Your task to perform on an android device: add a contact Image 0: 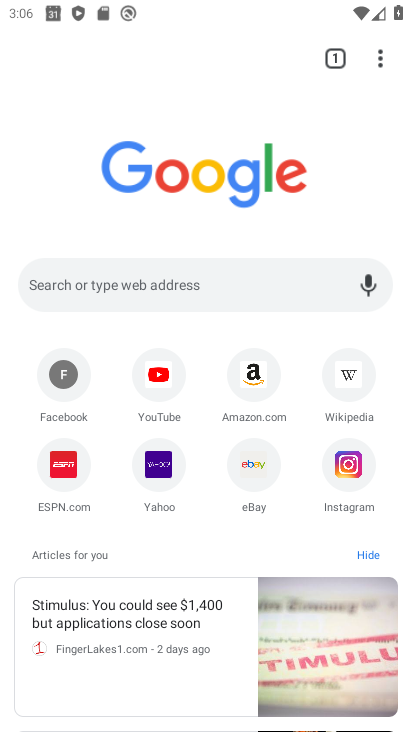
Step 0: press back button
Your task to perform on an android device: add a contact Image 1: 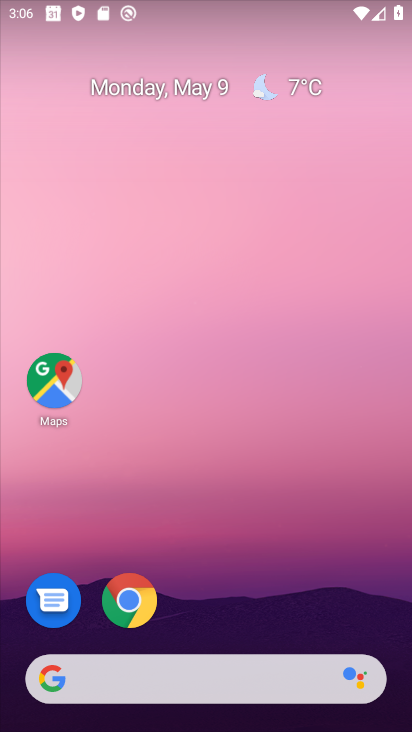
Step 1: drag from (209, 587) to (160, 30)
Your task to perform on an android device: add a contact Image 2: 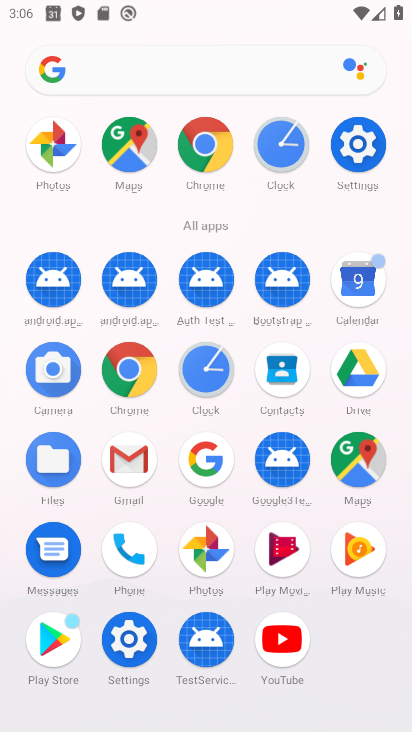
Step 2: drag from (14, 507) to (0, 179)
Your task to perform on an android device: add a contact Image 3: 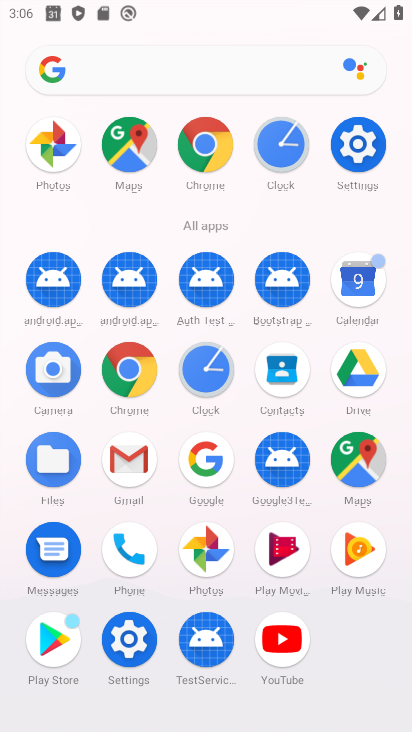
Step 3: click (282, 369)
Your task to perform on an android device: add a contact Image 4: 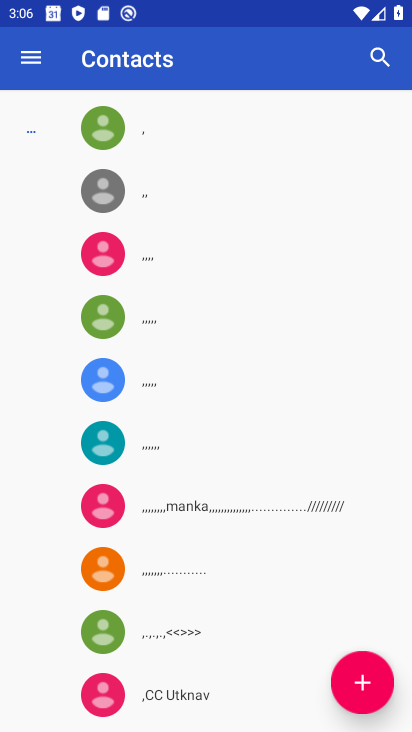
Step 4: click (372, 678)
Your task to perform on an android device: add a contact Image 5: 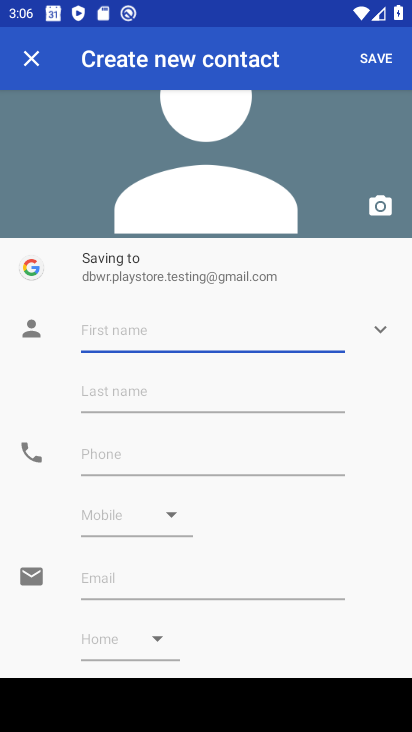
Step 5: click (165, 333)
Your task to perform on an android device: add a contact Image 6: 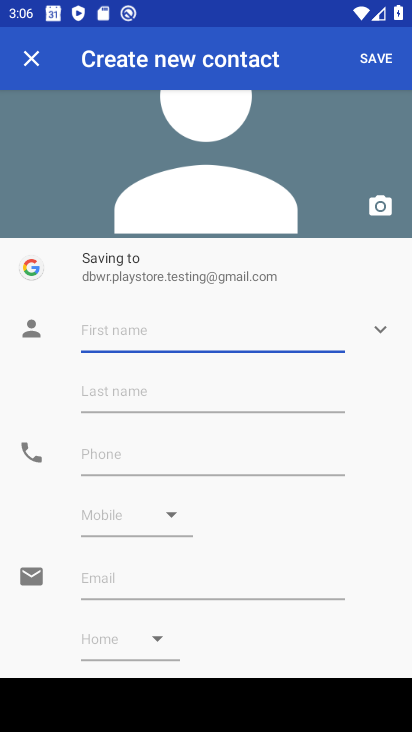
Step 6: type "Alkgg"
Your task to perform on an android device: add a contact Image 7: 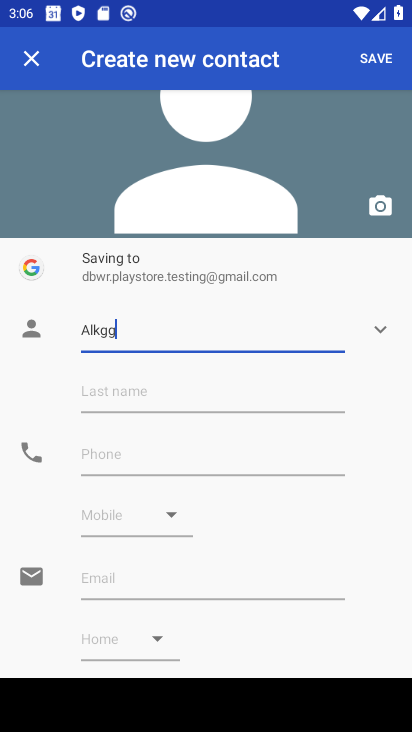
Step 7: type ""
Your task to perform on an android device: add a contact Image 8: 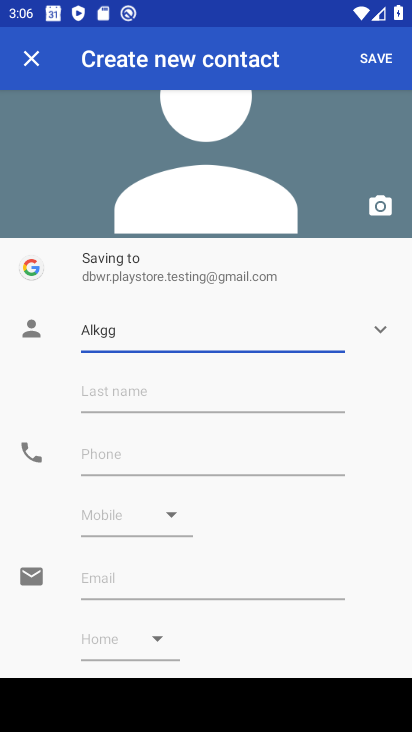
Step 8: click (126, 479)
Your task to perform on an android device: add a contact Image 9: 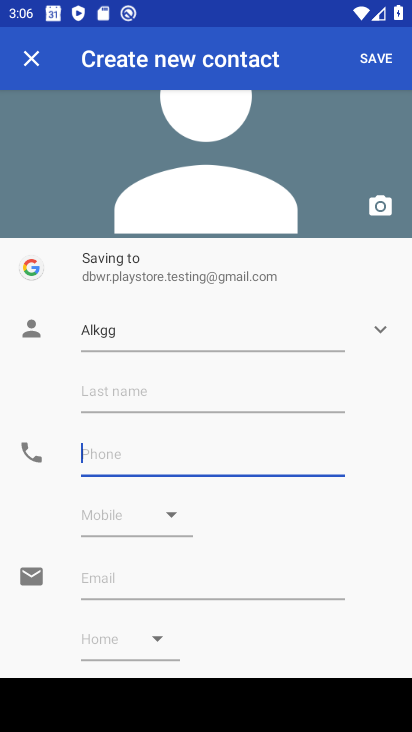
Step 9: type "000987"
Your task to perform on an android device: add a contact Image 10: 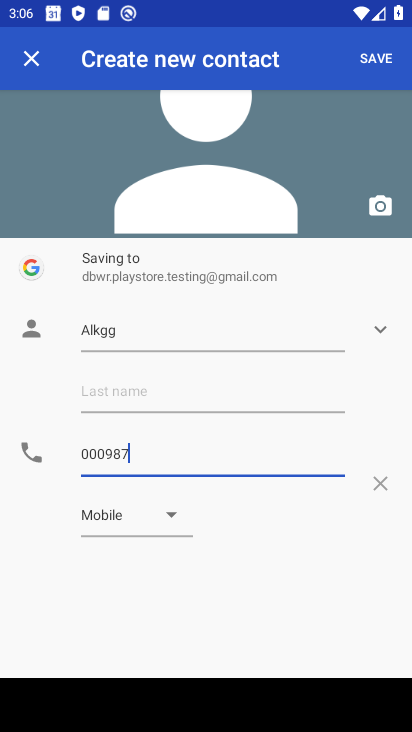
Step 10: type ""
Your task to perform on an android device: add a contact Image 11: 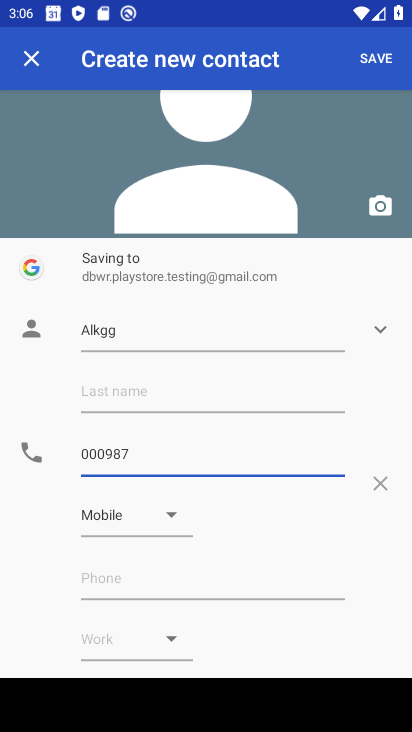
Step 11: click (369, 66)
Your task to perform on an android device: add a contact Image 12: 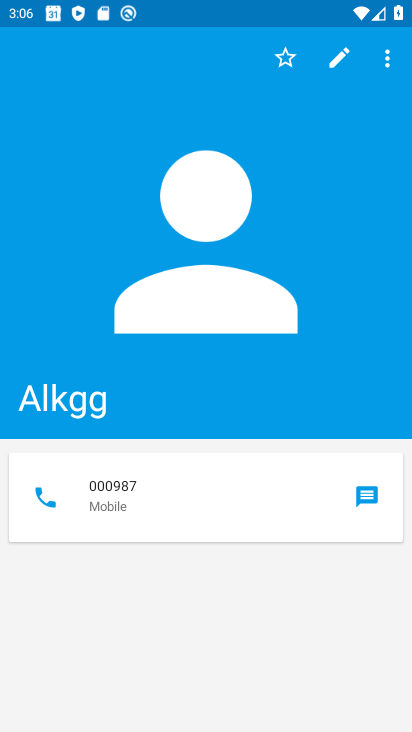
Step 12: task complete